Your task to perform on an android device: Is it going to rain today? Image 0: 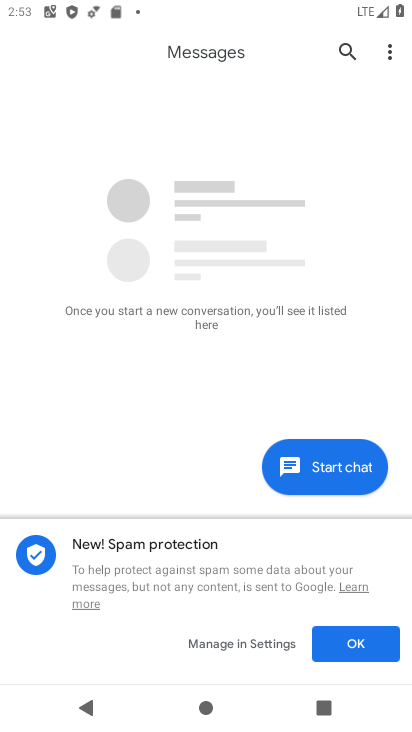
Step 0: press home button
Your task to perform on an android device: Is it going to rain today? Image 1: 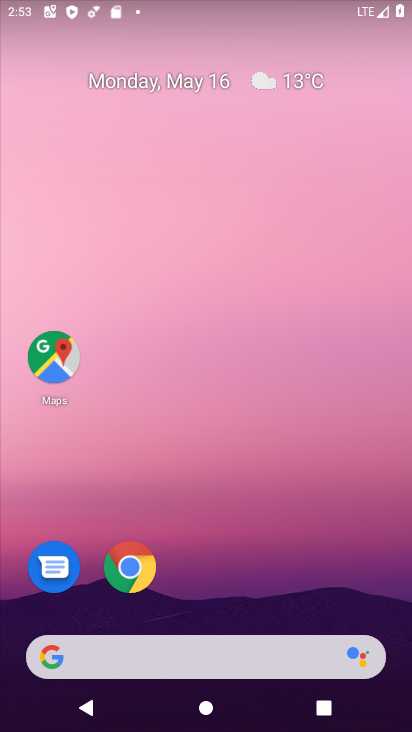
Step 1: drag from (251, 598) to (321, 73)
Your task to perform on an android device: Is it going to rain today? Image 2: 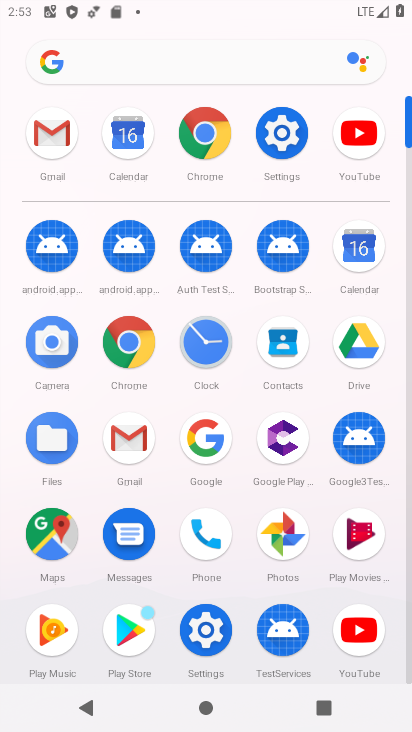
Step 2: click (135, 334)
Your task to perform on an android device: Is it going to rain today? Image 3: 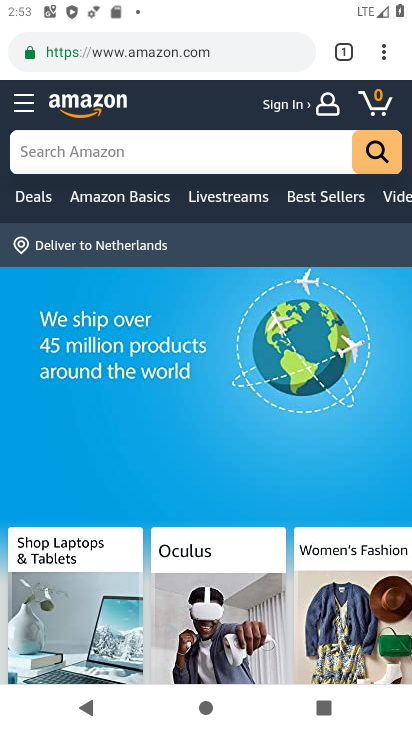
Step 3: click (221, 45)
Your task to perform on an android device: Is it going to rain today? Image 4: 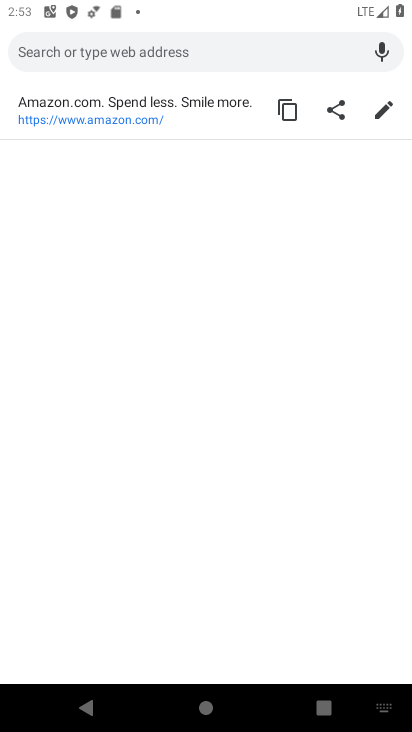
Step 4: type "weather"
Your task to perform on an android device: Is it going to rain today? Image 5: 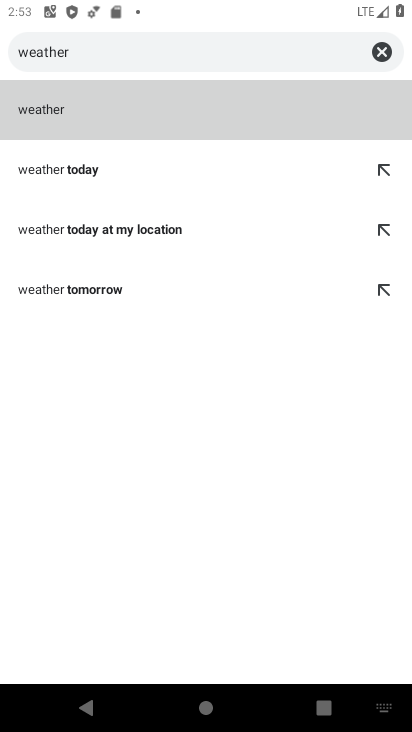
Step 5: click (43, 133)
Your task to perform on an android device: Is it going to rain today? Image 6: 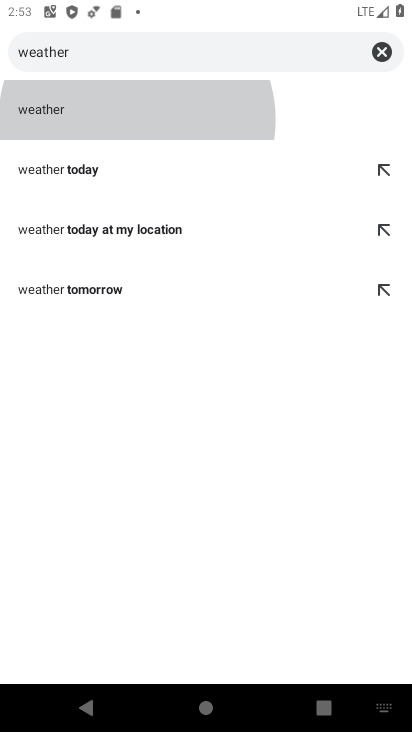
Step 6: click (42, 112)
Your task to perform on an android device: Is it going to rain today? Image 7: 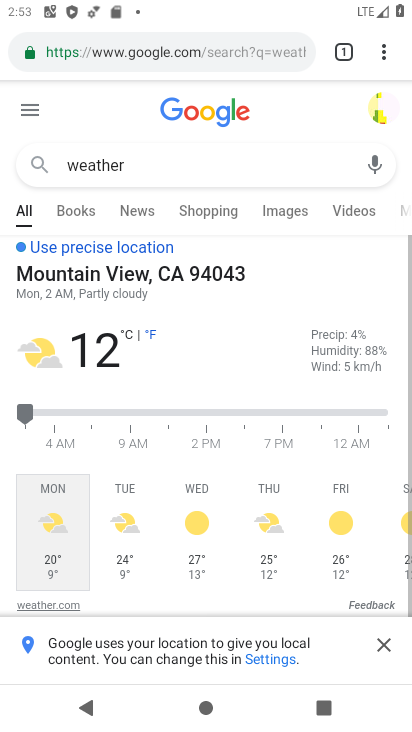
Step 7: task complete